Your task to perform on an android device: Open Google Chrome Image 0: 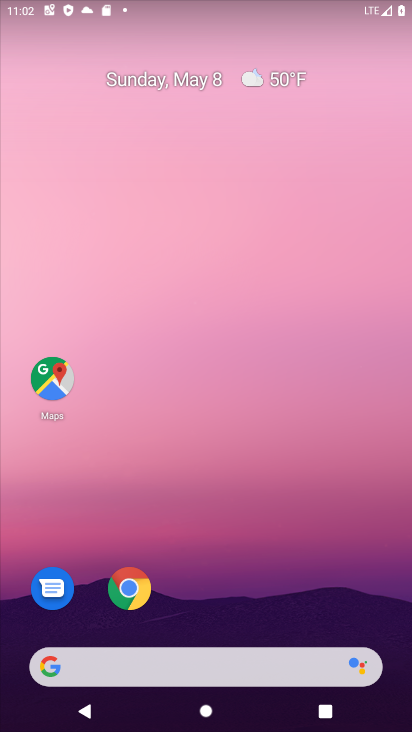
Step 0: click (132, 590)
Your task to perform on an android device: Open Google Chrome Image 1: 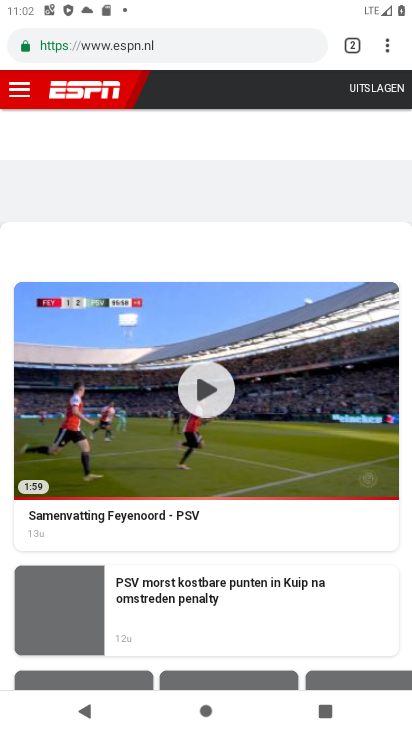
Step 1: task complete